Your task to perform on an android device: star an email in the gmail app Image 0: 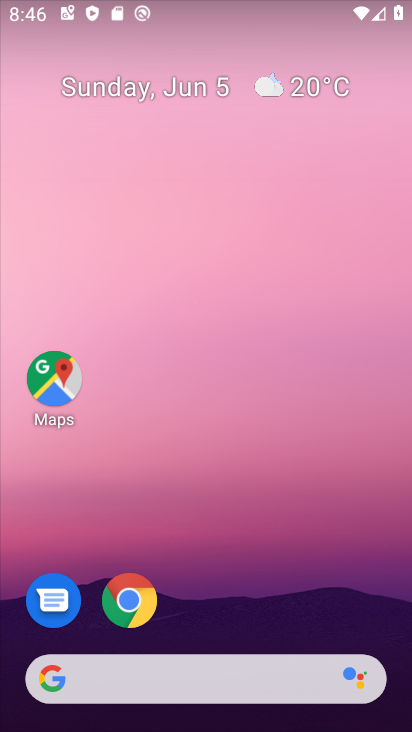
Step 0: drag from (246, 557) to (261, 24)
Your task to perform on an android device: star an email in the gmail app Image 1: 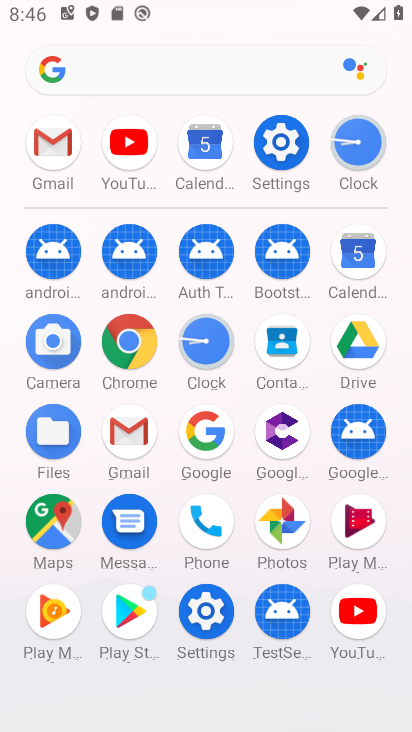
Step 1: click (51, 141)
Your task to perform on an android device: star an email in the gmail app Image 2: 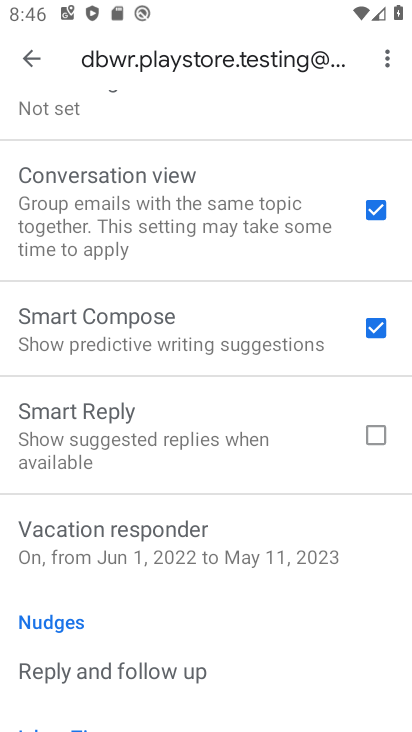
Step 2: click (30, 48)
Your task to perform on an android device: star an email in the gmail app Image 3: 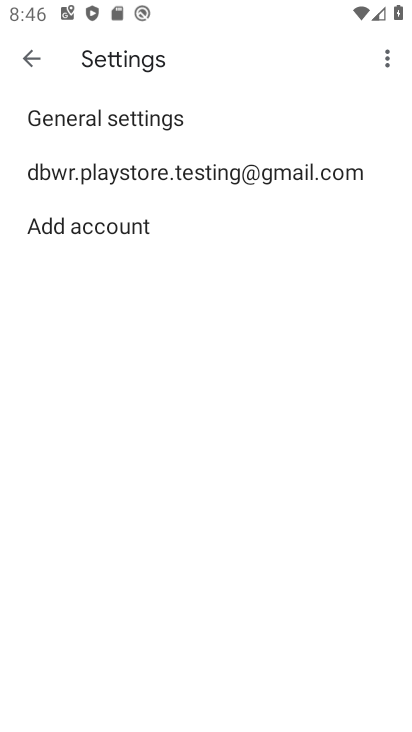
Step 3: click (30, 49)
Your task to perform on an android device: star an email in the gmail app Image 4: 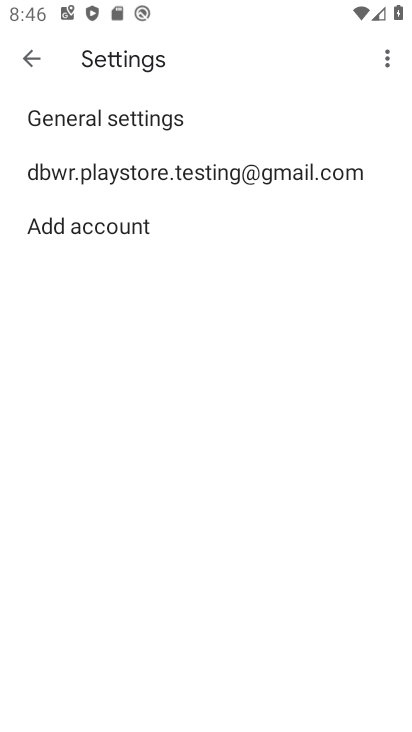
Step 4: click (30, 49)
Your task to perform on an android device: star an email in the gmail app Image 5: 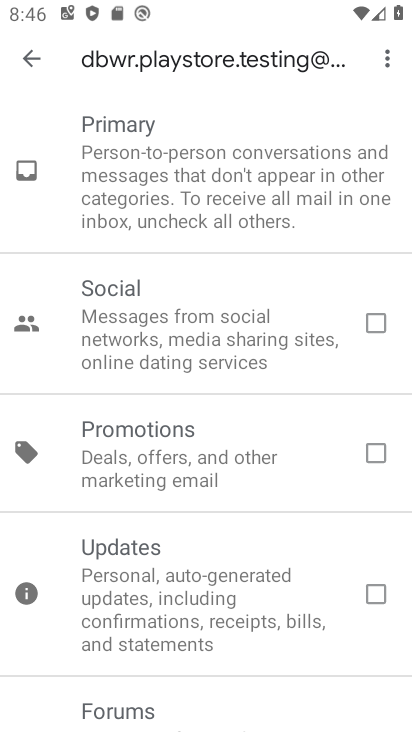
Step 5: click (30, 60)
Your task to perform on an android device: star an email in the gmail app Image 6: 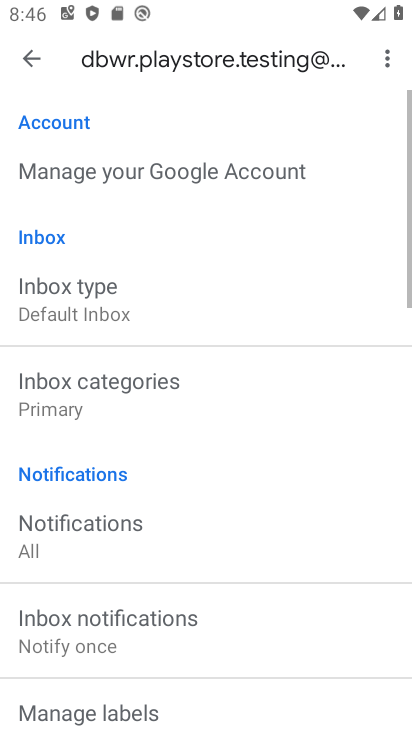
Step 6: click (30, 62)
Your task to perform on an android device: star an email in the gmail app Image 7: 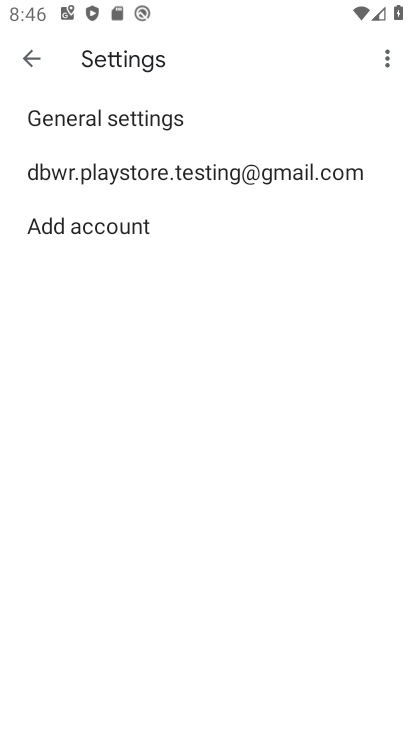
Step 7: click (30, 60)
Your task to perform on an android device: star an email in the gmail app Image 8: 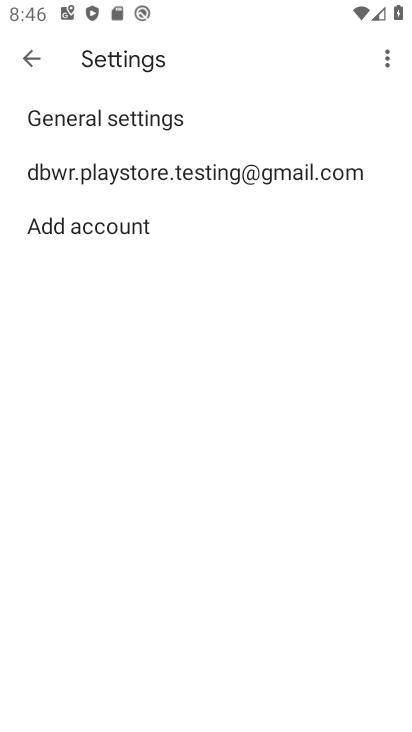
Step 8: click (30, 48)
Your task to perform on an android device: star an email in the gmail app Image 9: 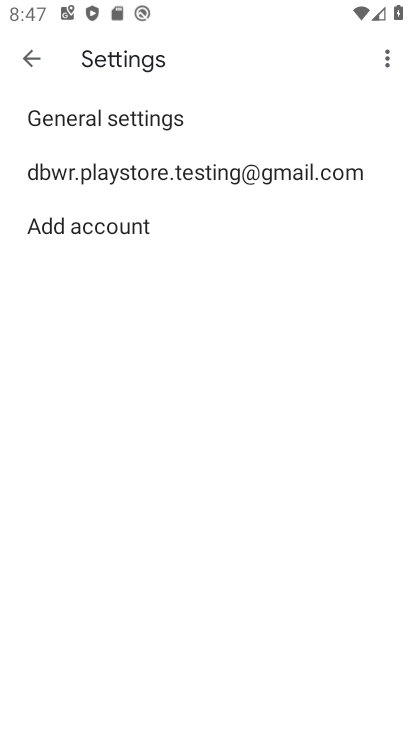
Step 9: press home button
Your task to perform on an android device: star an email in the gmail app Image 10: 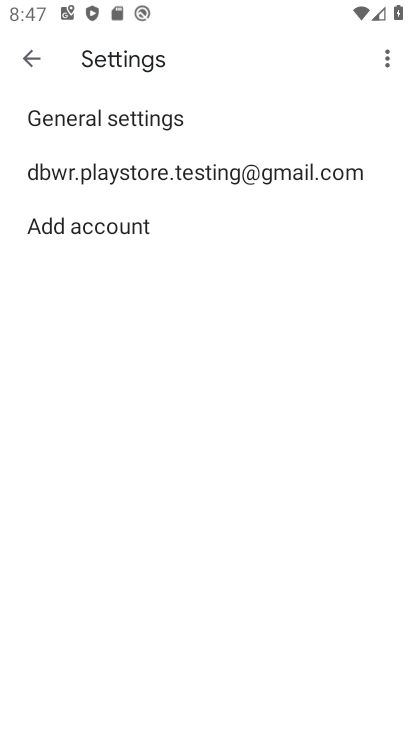
Step 10: press home button
Your task to perform on an android device: star an email in the gmail app Image 11: 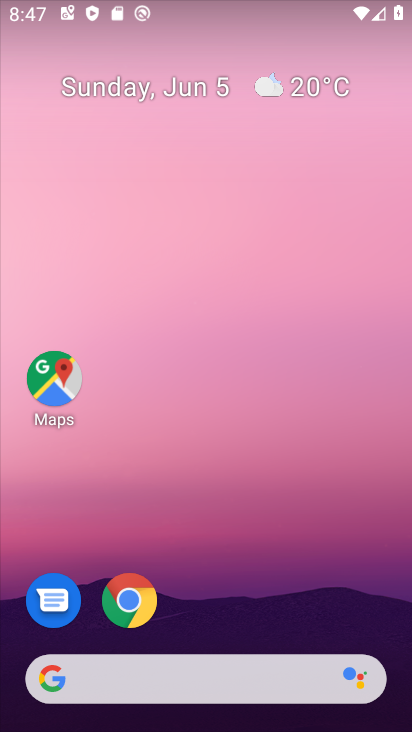
Step 11: drag from (250, 535) to (241, 11)
Your task to perform on an android device: star an email in the gmail app Image 12: 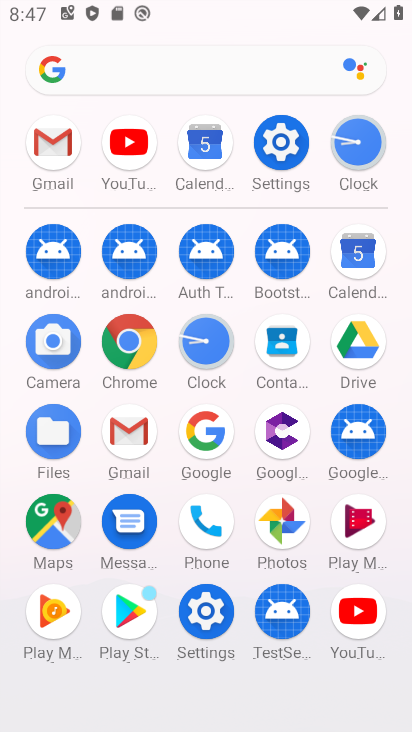
Step 12: click (59, 137)
Your task to perform on an android device: star an email in the gmail app Image 13: 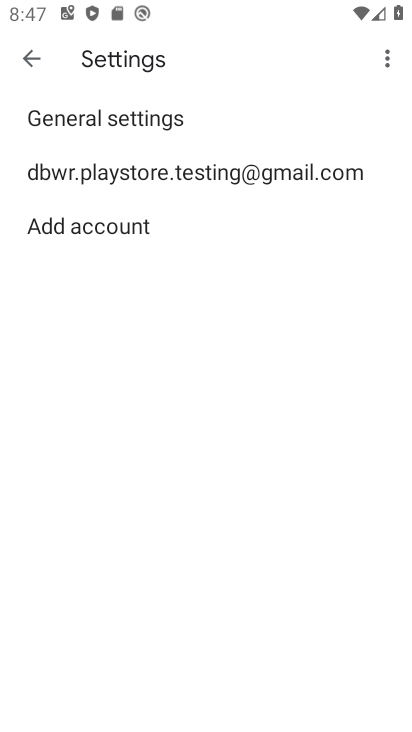
Step 13: click (35, 46)
Your task to perform on an android device: star an email in the gmail app Image 14: 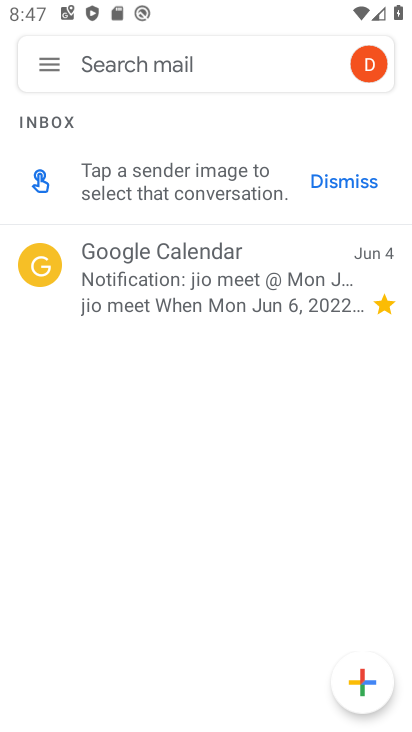
Step 14: click (45, 58)
Your task to perform on an android device: star an email in the gmail app Image 15: 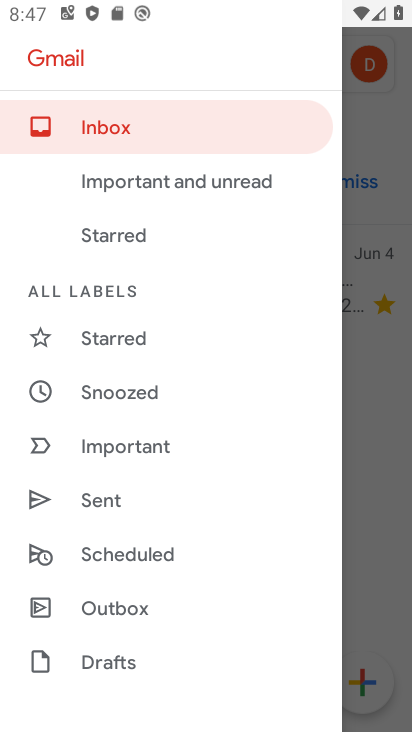
Step 15: drag from (186, 591) to (229, 130)
Your task to perform on an android device: star an email in the gmail app Image 16: 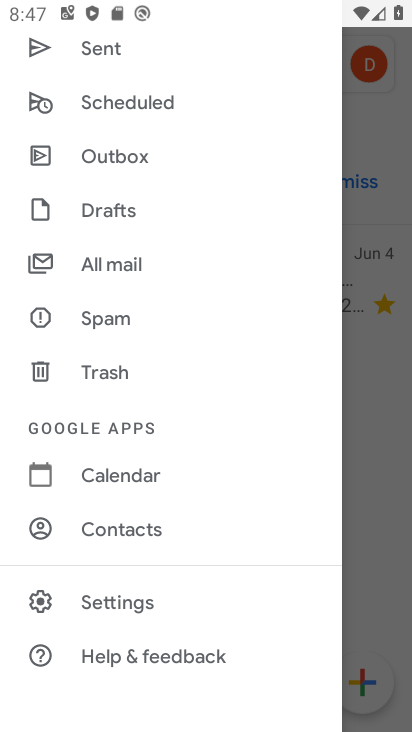
Step 16: click (152, 264)
Your task to perform on an android device: star an email in the gmail app Image 17: 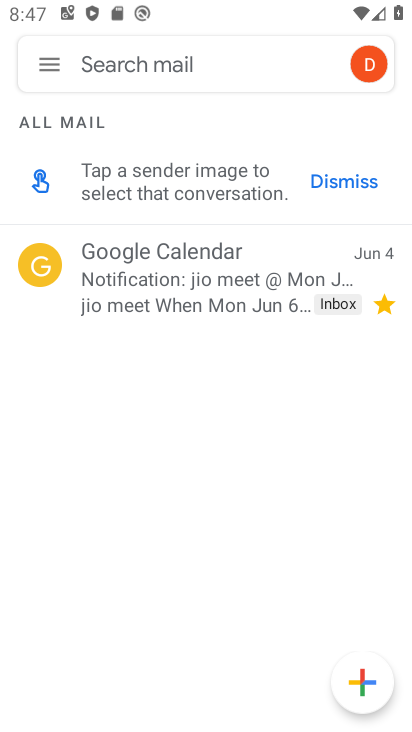
Step 17: task complete